Your task to perform on an android device: turn on bluetooth scan Image 0: 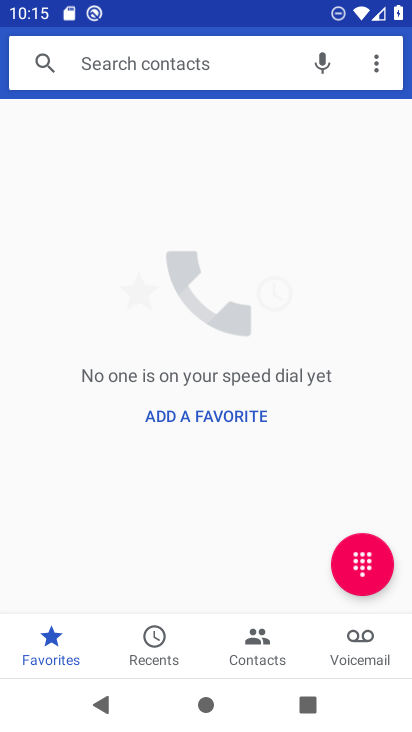
Step 0: press home button
Your task to perform on an android device: turn on bluetooth scan Image 1: 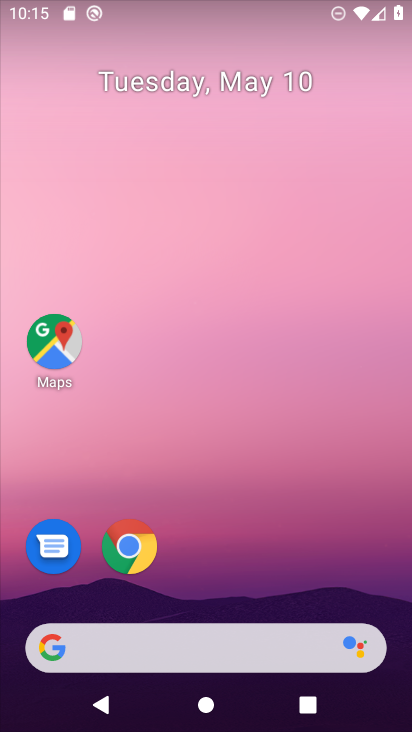
Step 1: drag from (306, 562) to (276, 105)
Your task to perform on an android device: turn on bluetooth scan Image 2: 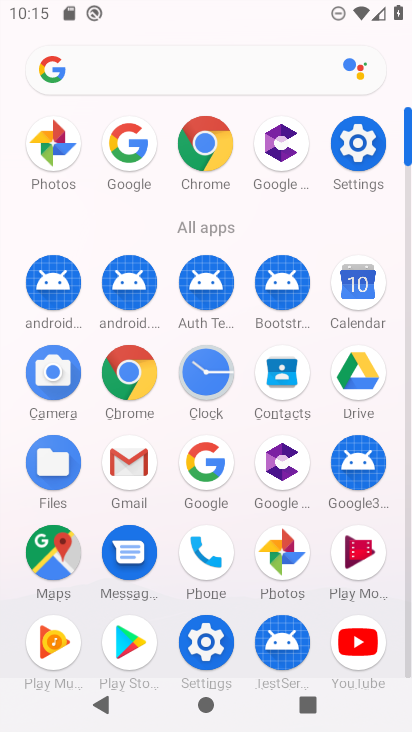
Step 2: click (361, 145)
Your task to perform on an android device: turn on bluetooth scan Image 3: 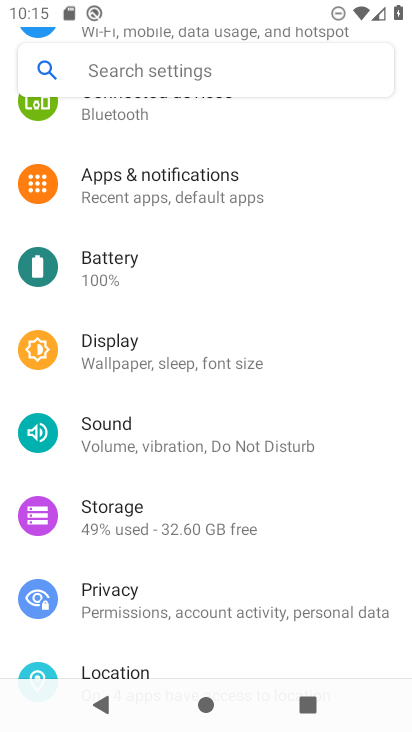
Step 3: click (136, 668)
Your task to perform on an android device: turn on bluetooth scan Image 4: 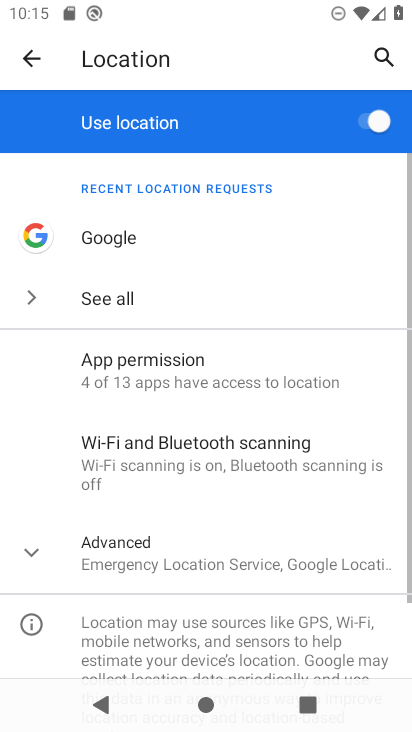
Step 4: click (219, 469)
Your task to perform on an android device: turn on bluetooth scan Image 5: 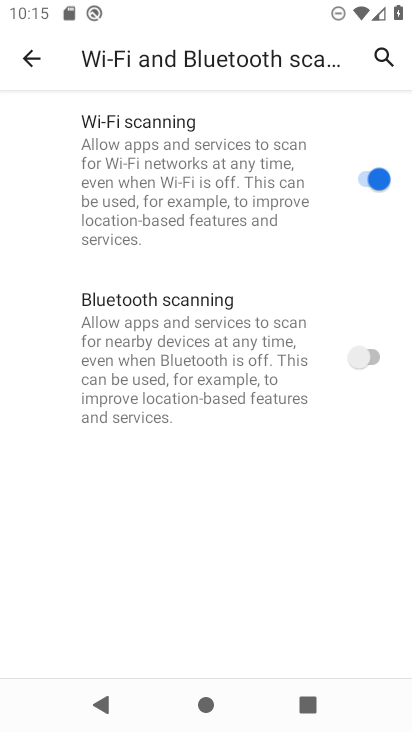
Step 5: click (363, 348)
Your task to perform on an android device: turn on bluetooth scan Image 6: 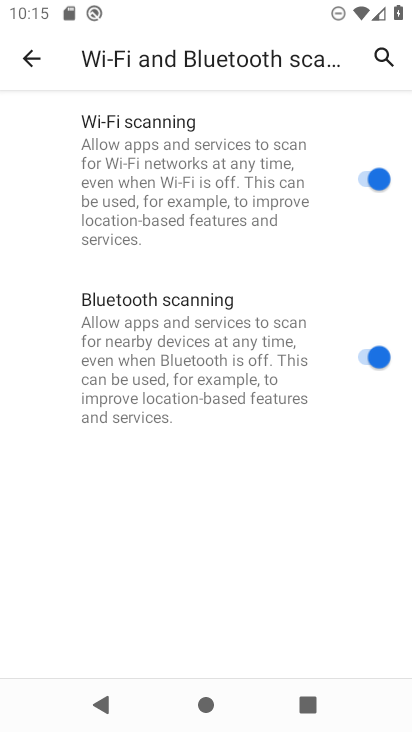
Step 6: task complete